Your task to perform on an android device: Open Android settings Image 0: 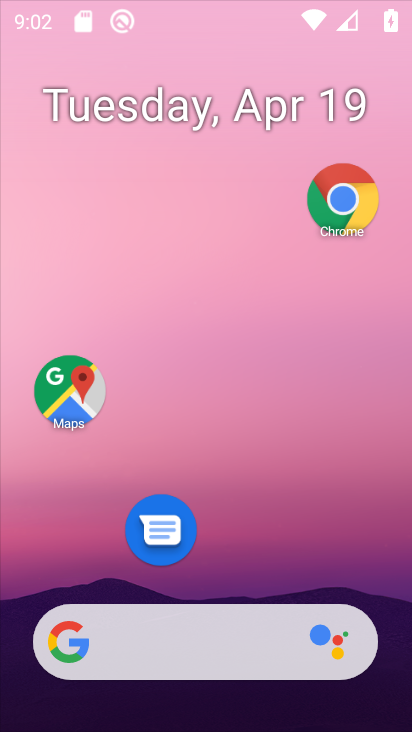
Step 0: drag from (245, 439) to (302, 152)
Your task to perform on an android device: Open Android settings Image 1: 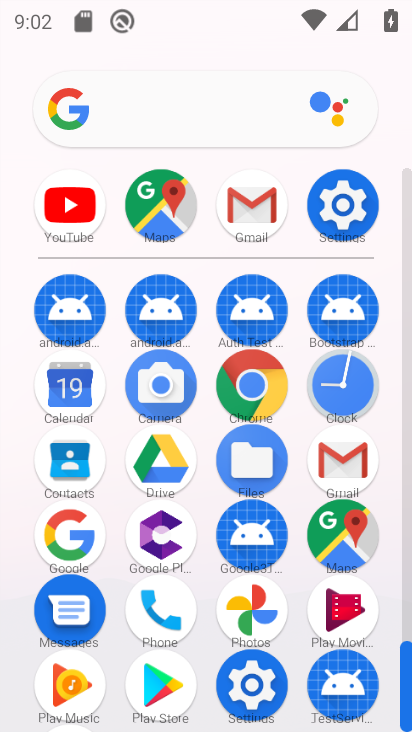
Step 1: click (330, 219)
Your task to perform on an android device: Open Android settings Image 2: 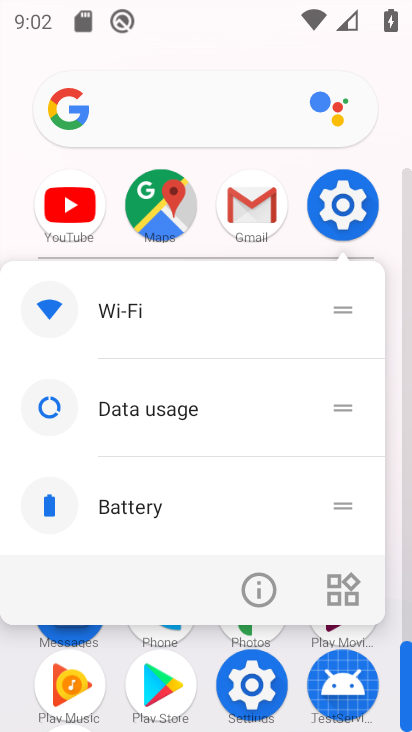
Step 2: click (262, 582)
Your task to perform on an android device: Open Android settings Image 3: 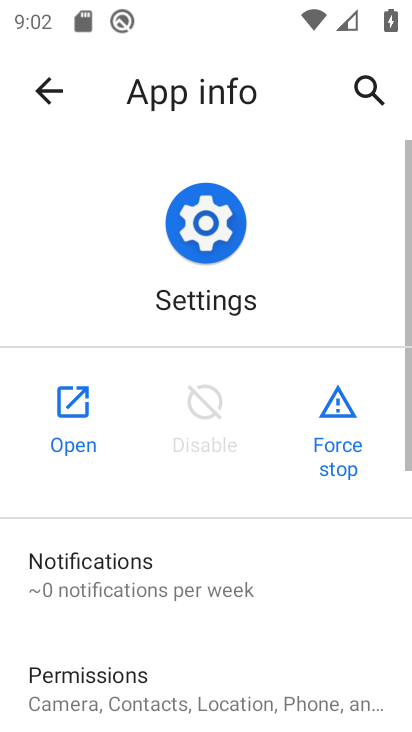
Step 3: click (56, 419)
Your task to perform on an android device: Open Android settings Image 4: 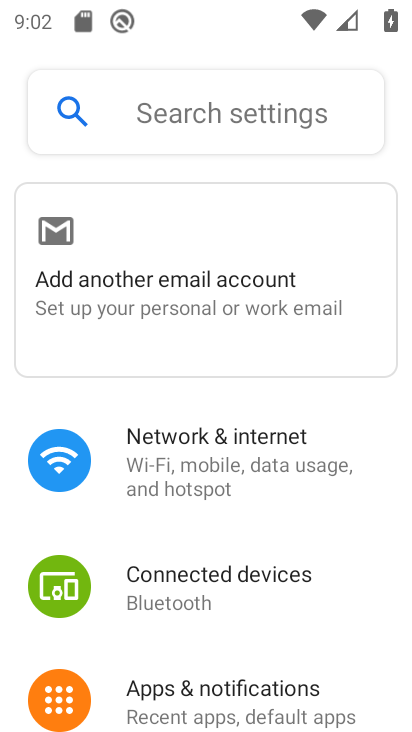
Step 4: drag from (189, 610) to (362, 90)
Your task to perform on an android device: Open Android settings Image 5: 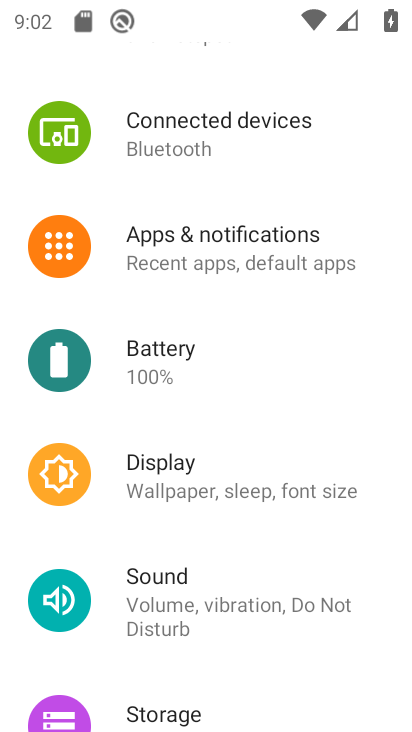
Step 5: drag from (201, 662) to (261, 75)
Your task to perform on an android device: Open Android settings Image 6: 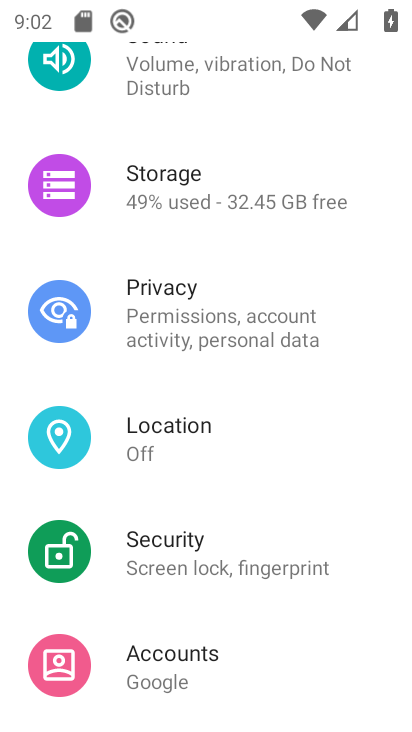
Step 6: drag from (219, 665) to (270, 96)
Your task to perform on an android device: Open Android settings Image 7: 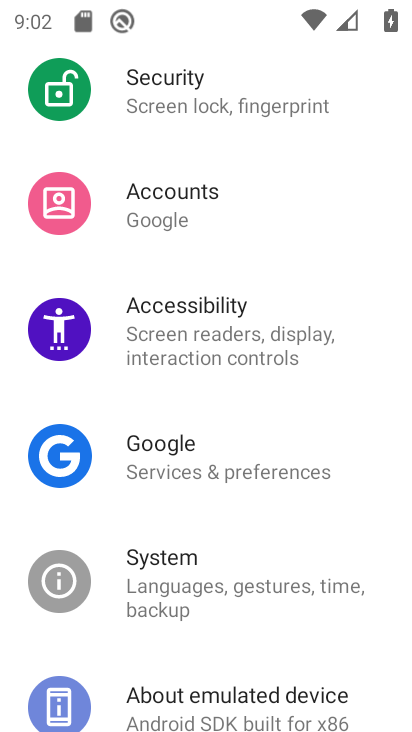
Step 7: drag from (204, 655) to (278, 194)
Your task to perform on an android device: Open Android settings Image 8: 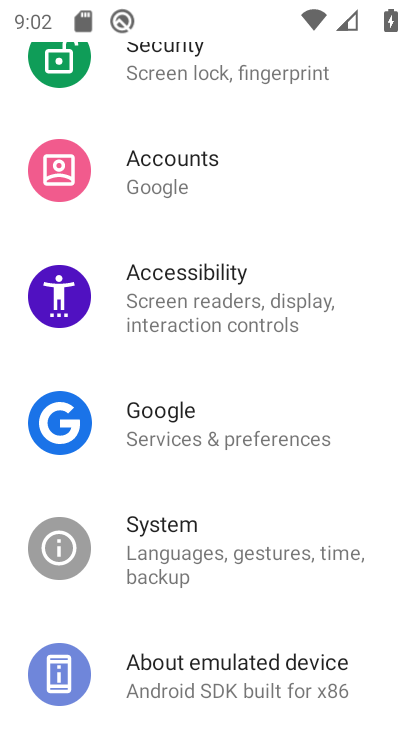
Step 8: click (232, 676)
Your task to perform on an android device: Open Android settings Image 9: 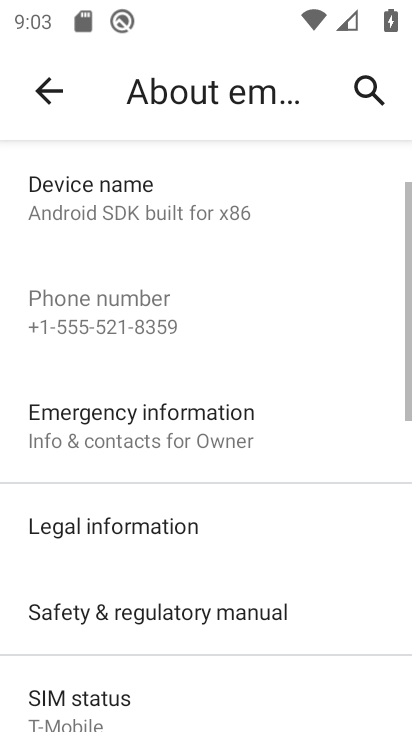
Step 9: drag from (251, 626) to (333, 76)
Your task to perform on an android device: Open Android settings Image 10: 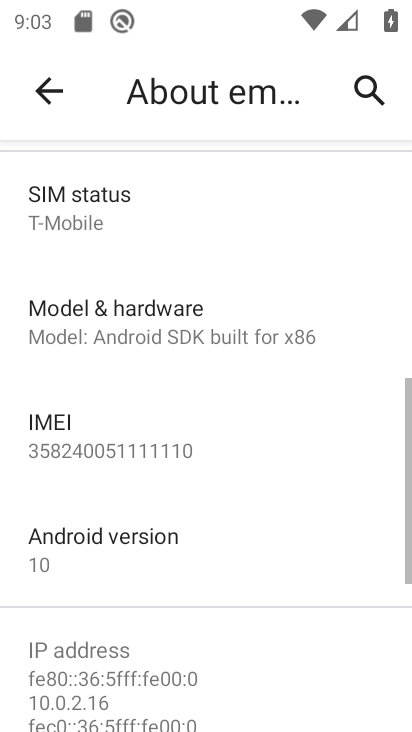
Step 10: click (175, 540)
Your task to perform on an android device: Open Android settings Image 11: 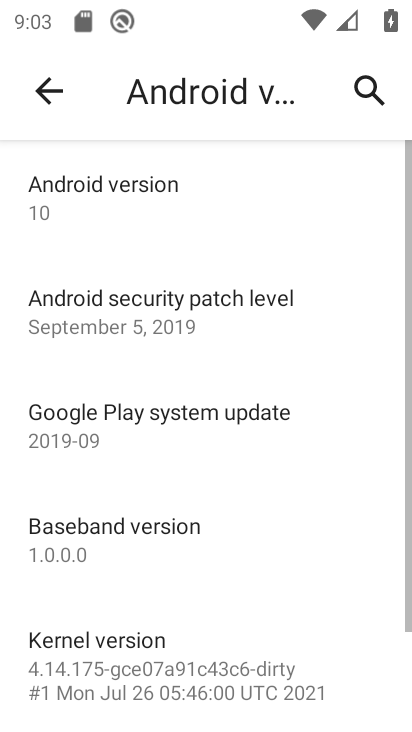
Step 11: task complete